Your task to perform on an android device: add a contact Image 0: 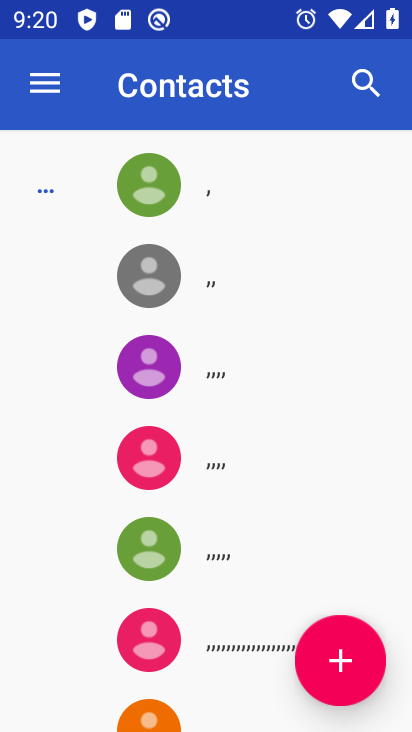
Step 0: click (355, 661)
Your task to perform on an android device: add a contact Image 1: 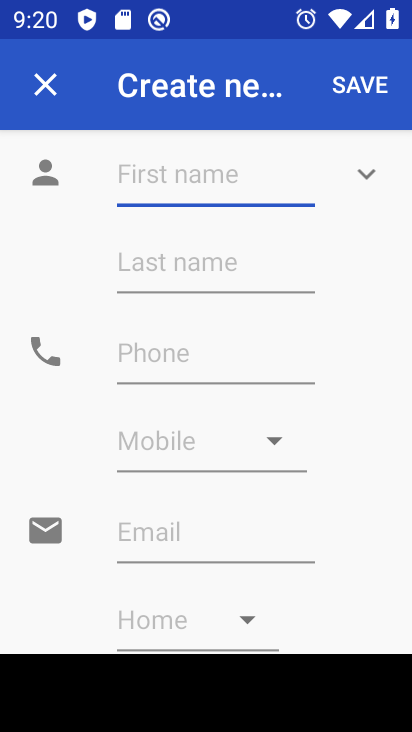
Step 1: click (204, 171)
Your task to perform on an android device: add a contact Image 2: 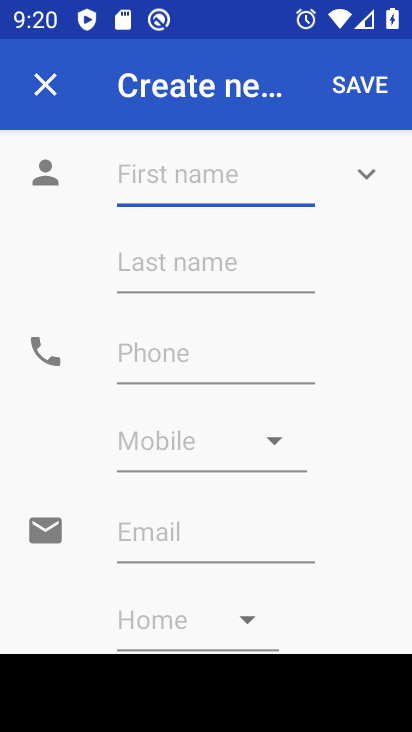
Step 2: type "gggggg"
Your task to perform on an android device: add a contact Image 3: 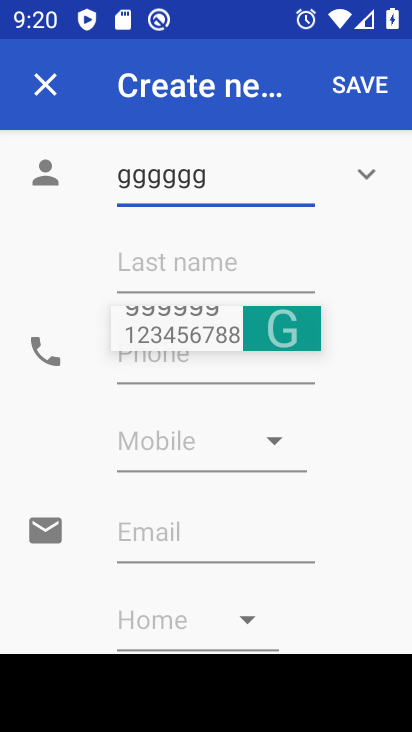
Step 3: click (160, 352)
Your task to perform on an android device: add a contact Image 4: 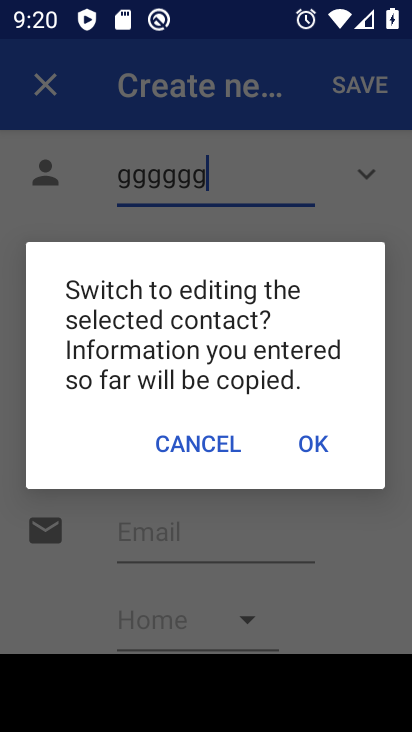
Step 4: click (190, 459)
Your task to perform on an android device: add a contact Image 5: 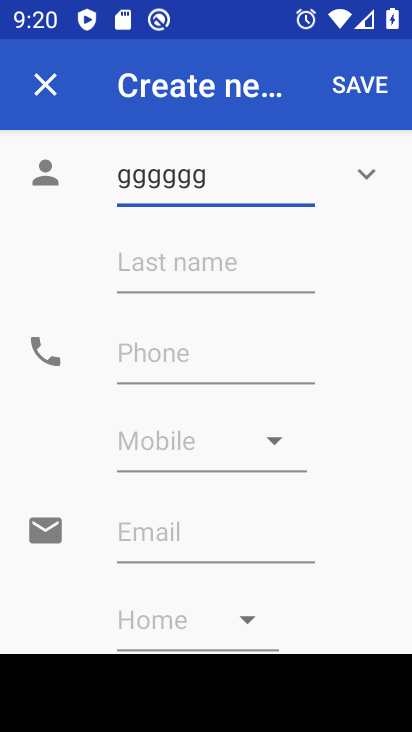
Step 5: click (183, 355)
Your task to perform on an android device: add a contact Image 6: 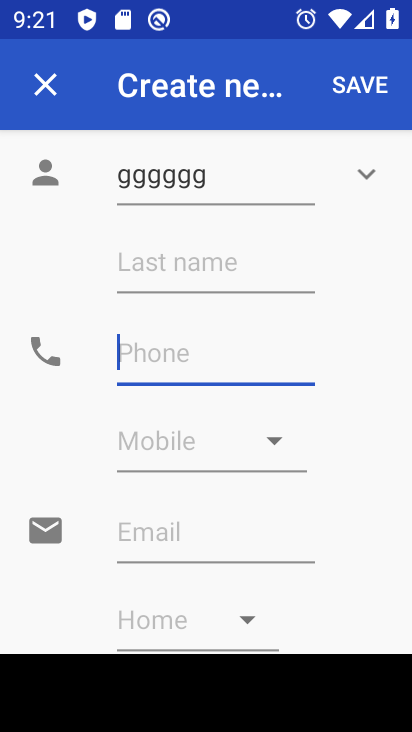
Step 6: type "23456789098765"
Your task to perform on an android device: add a contact Image 7: 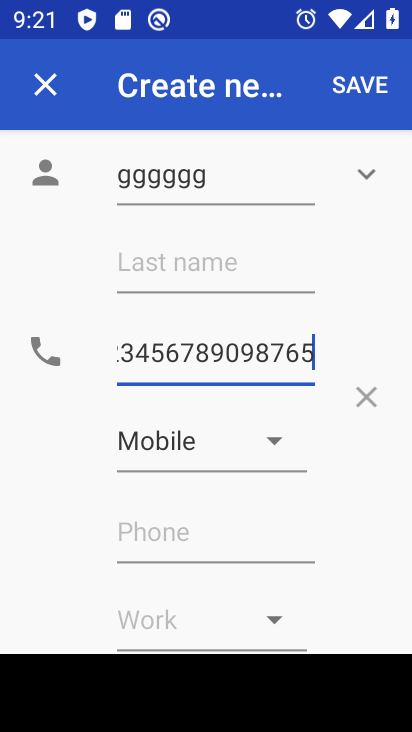
Step 7: click (364, 81)
Your task to perform on an android device: add a contact Image 8: 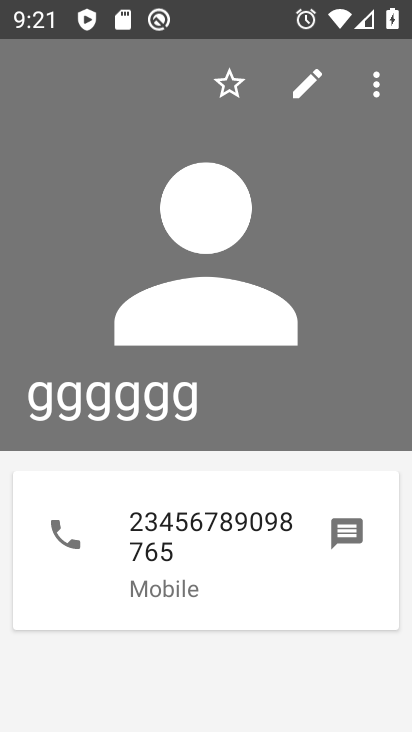
Step 8: task complete